Your task to perform on an android device: move an email to a new category in the gmail app Image 0: 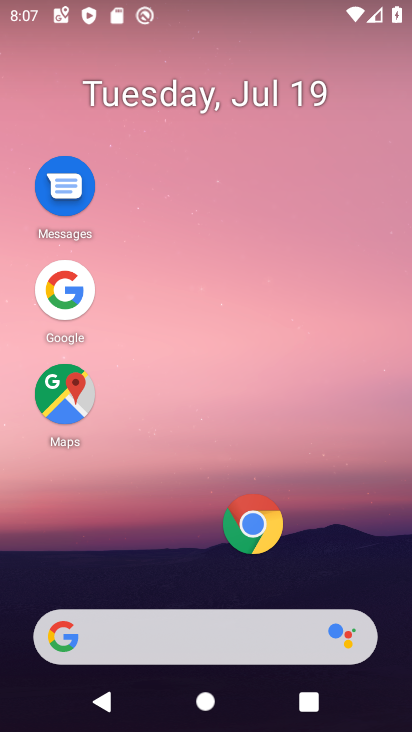
Step 0: drag from (188, 596) to (409, 232)
Your task to perform on an android device: move an email to a new category in the gmail app Image 1: 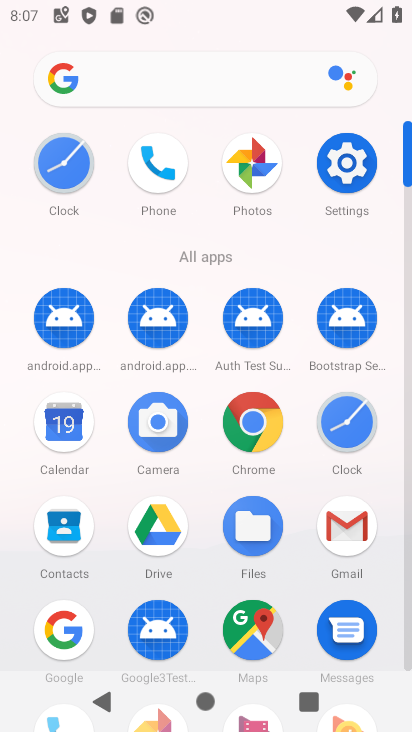
Step 1: click (345, 509)
Your task to perform on an android device: move an email to a new category in the gmail app Image 2: 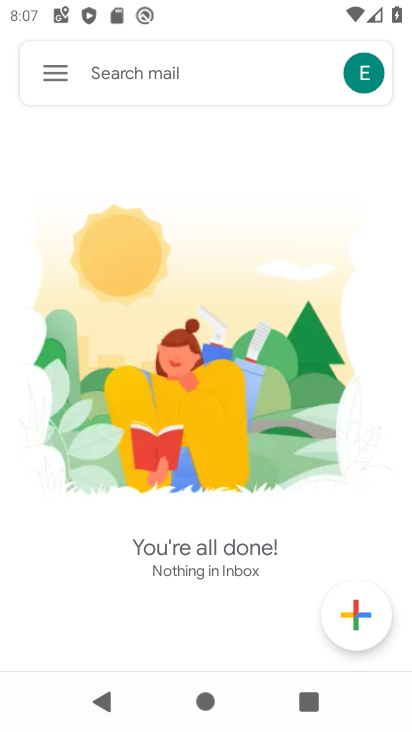
Step 2: task complete